Your task to perform on an android device: manage bookmarks in the chrome app Image 0: 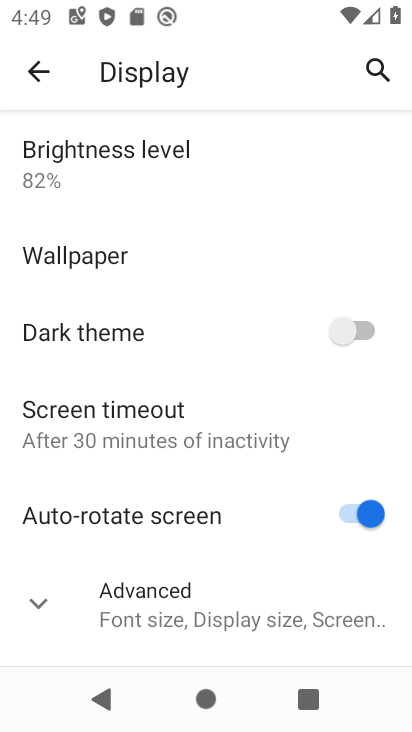
Step 0: press home button
Your task to perform on an android device: manage bookmarks in the chrome app Image 1: 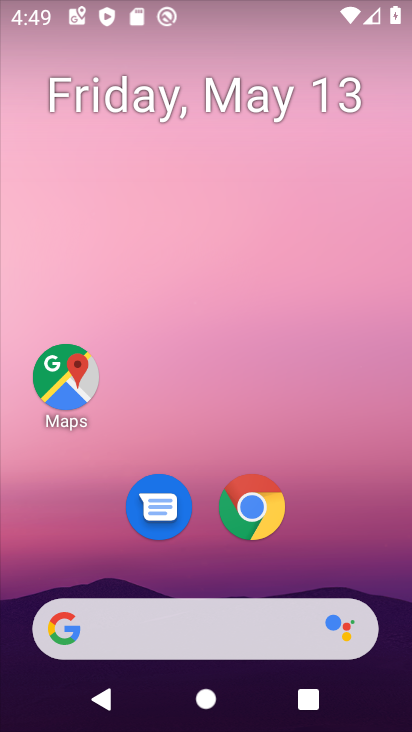
Step 1: click (260, 498)
Your task to perform on an android device: manage bookmarks in the chrome app Image 2: 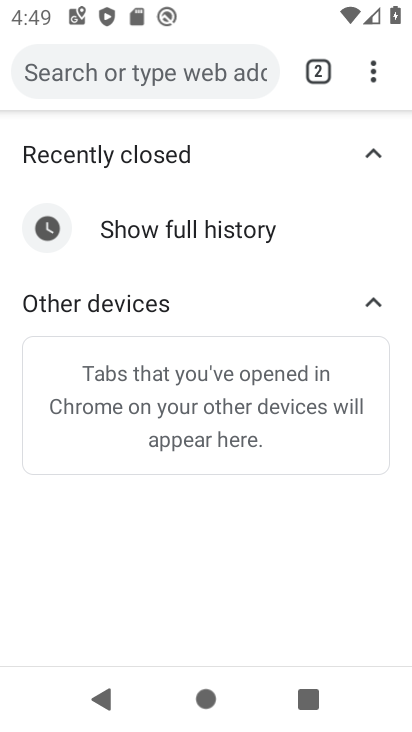
Step 2: click (376, 73)
Your task to perform on an android device: manage bookmarks in the chrome app Image 3: 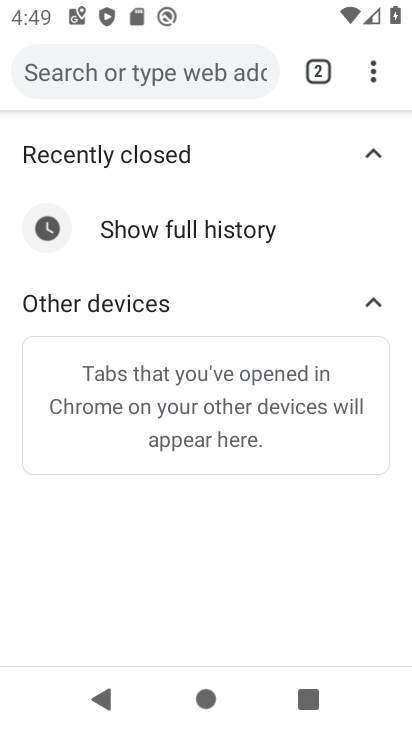
Step 3: click (373, 78)
Your task to perform on an android device: manage bookmarks in the chrome app Image 4: 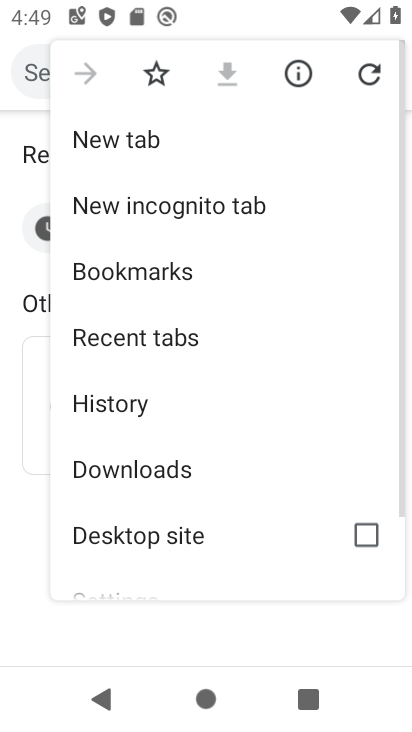
Step 4: click (166, 270)
Your task to perform on an android device: manage bookmarks in the chrome app Image 5: 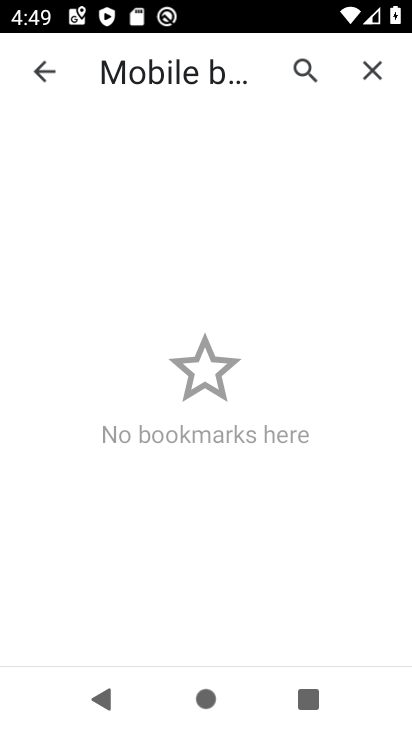
Step 5: task complete